Your task to perform on an android device: Open the phone app and click the voicemail tab. Image 0: 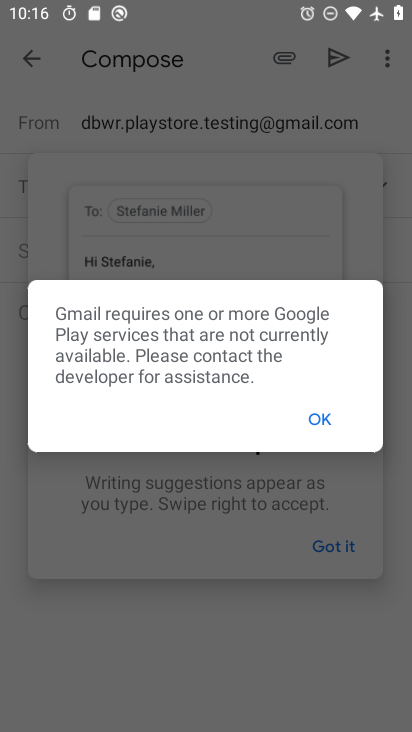
Step 0: press home button
Your task to perform on an android device: Open the phone app and click the voicemail tab. Image 1: 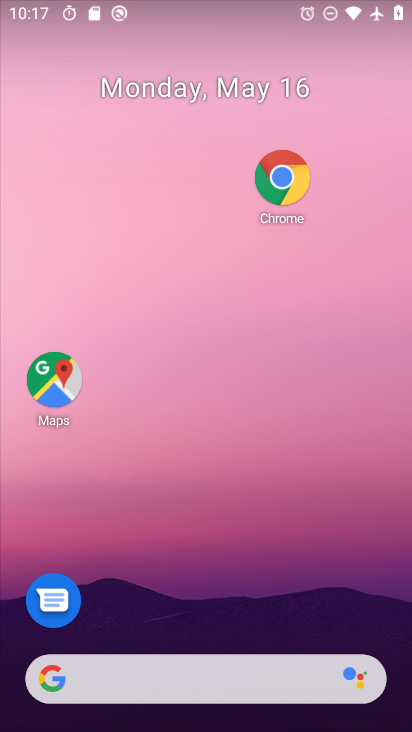
Step 1: drag from (225, 681) to (331, 195)
Your task to perform on an android device: Open the phone app and click the voicemail tab. Image 2: 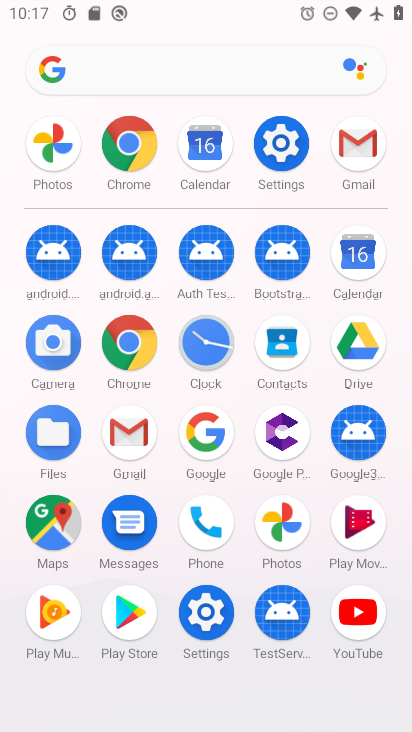
Step 2: click (214, 534)
Your task to perform on an android device: Open the phone app and click the voicemail tab. Image 3: 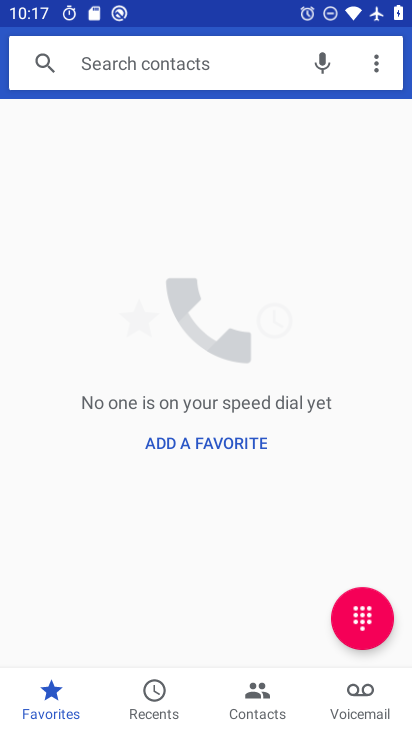
Step 3: click (367, 706)
Your task to perform on an android device: Open the phone app and click the voicemail tab. Image 4: 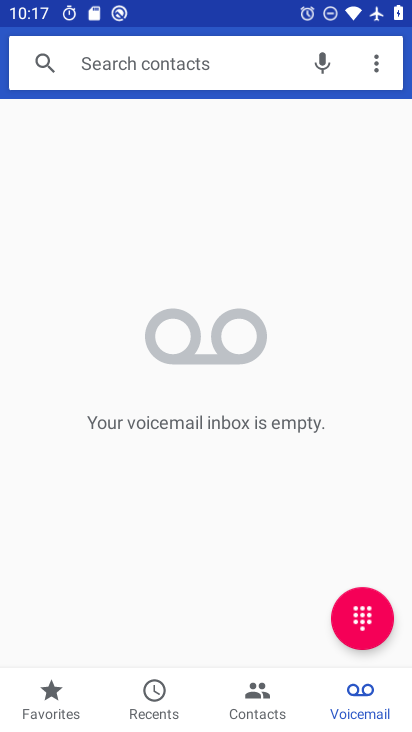
Step 4: task complete